Your task to perform on an android device: delete the emails in spam in the gmail app Image 0: 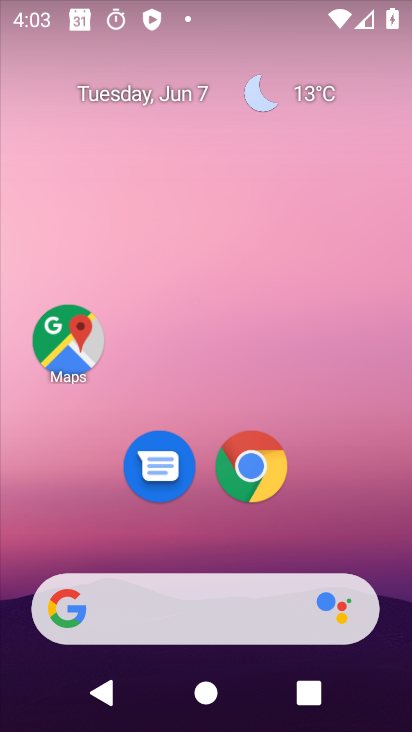
Step 0: drag from (406, 589) to (319, 251)
Your task to perform on an android device: delete the emails in spam in the gmail app Image 1: 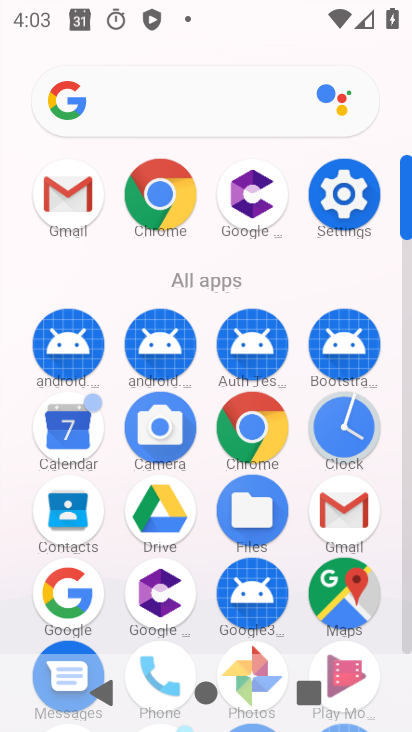
Step 1: click (362, 515)
Your task to perform on an android device: delete the emails in spam in the gmail app Image 2: 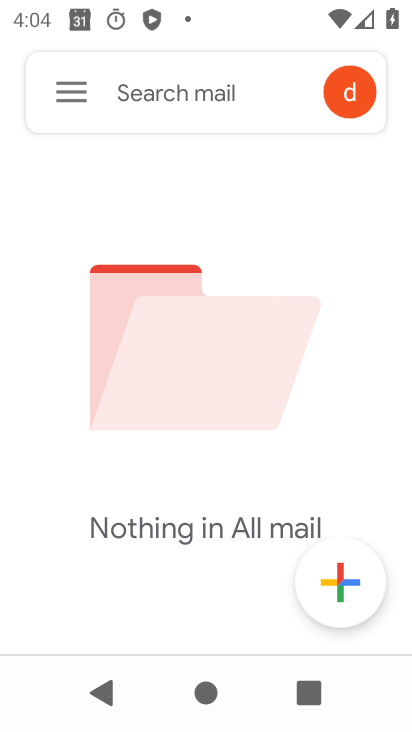
Step 2: click (72, 95)
Your task to perform on an android device: delete the emails in spam in the gmail app Image 3: 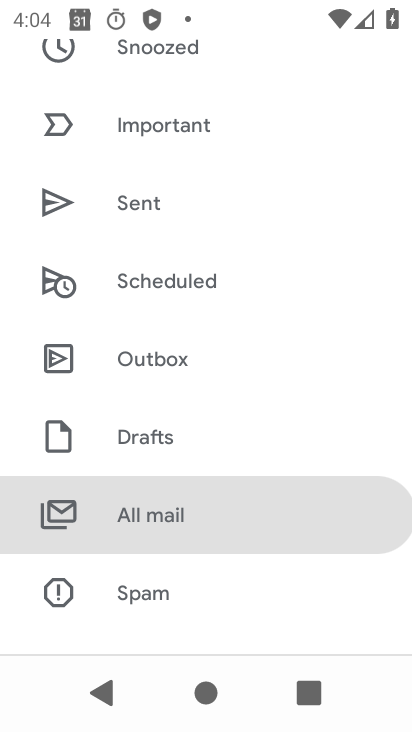
Step 3: click (209, 594)
Your task to perform on an android device: delete the emails in spam in the gmail app Image 4: 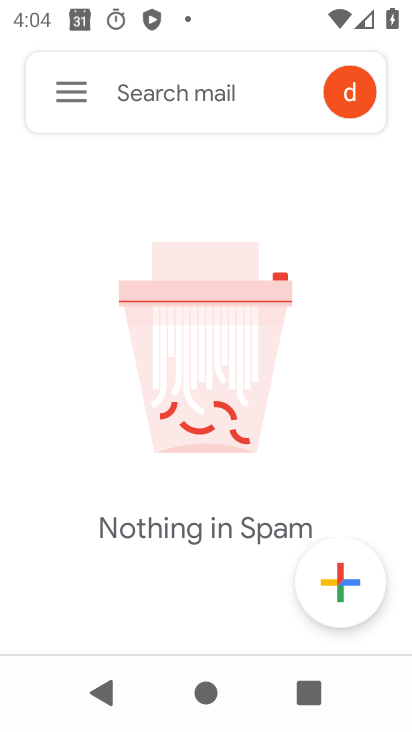
Step 4: task complete